Your task to perform on an android device: Google the capital of Colombia Image 0: 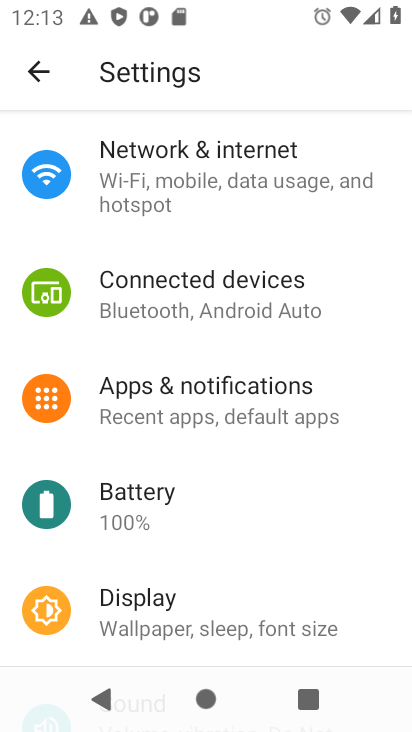
Step 0: press home button
Your task to perform on an android device: Google the capital of Colombia Image 1: 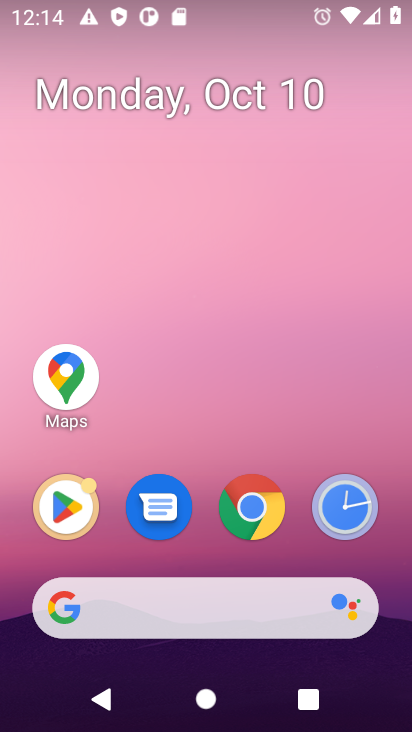
Step 1: click (199, 610)
Your task to perform on an android device: Google the capital of Colombia Image 2: 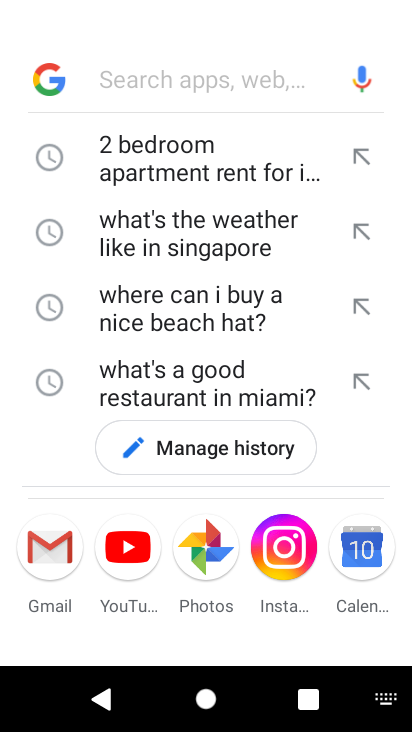
Step 2: press enter
Your task to perform on an android device: Google the capital of Colombia Image 3: 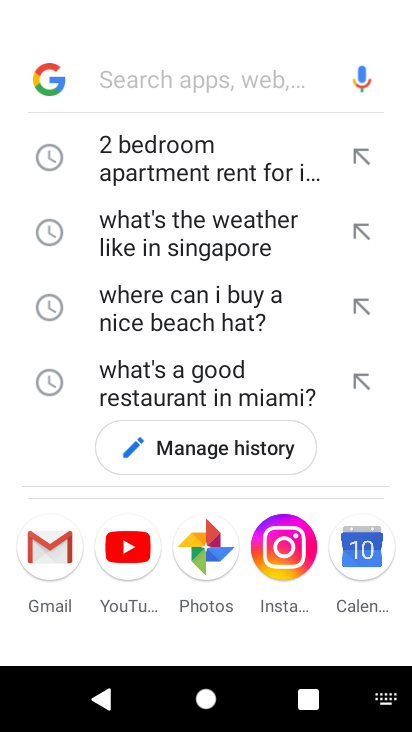
Step 3: type "Google the capital of Colombia"
Your task to perform on an android device: Google the capital of Colombia Image 4: 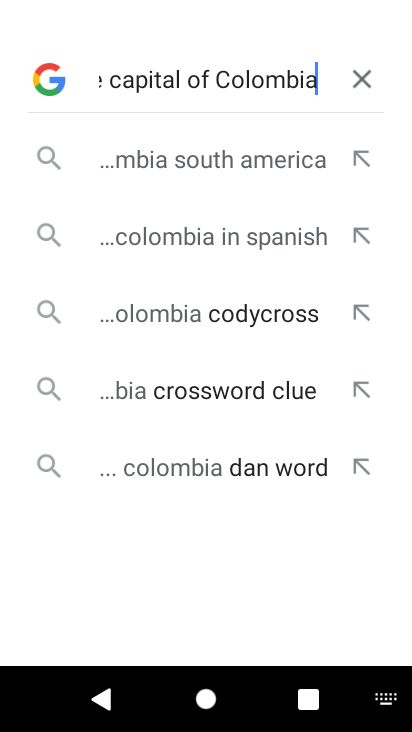
Step 4: press enter
Your task to perform on an android device: Google the capital of Colombia Image 5: 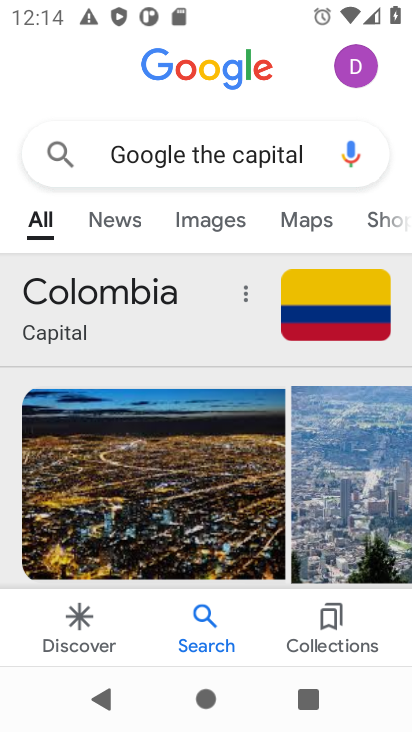
Step 5: task complete